Your task to perform on an android device: toggle sleep mode Image 0: 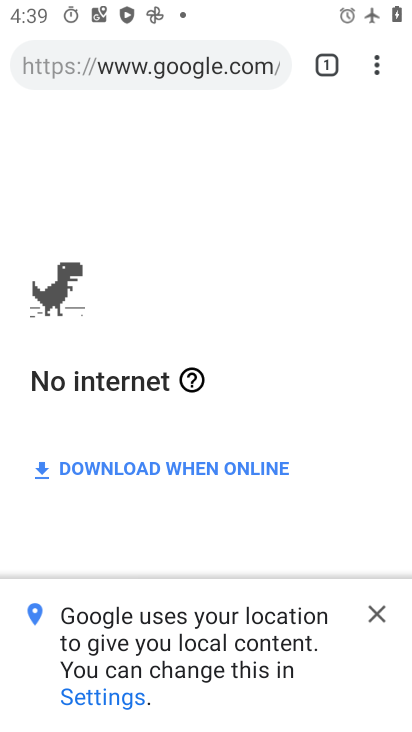
Step 0: press home button
Your task to perform on an android device: toggle sleep mode Image 1: 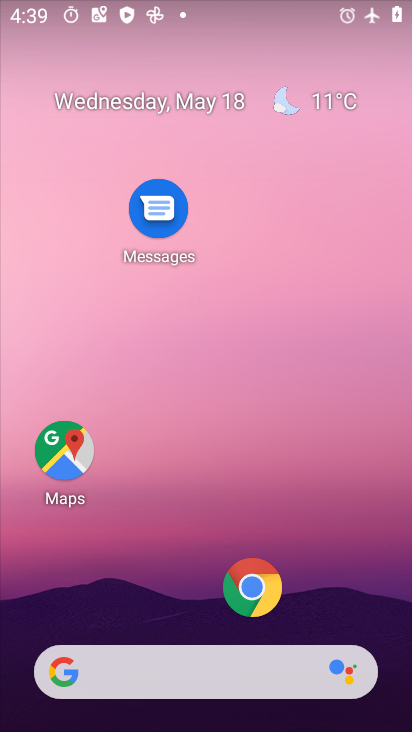
Step 1: drag from (293, 607) to (314, 327)
Your task to perform on an android device: toggle sleep mode Image 2: 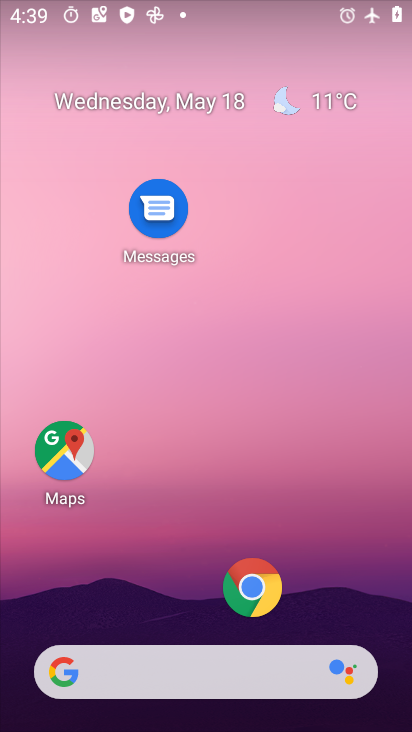
Step 2: drag from (316, 558) to (296, 0)
Your task to perform on an android device: toggle sleep mode Image 3: 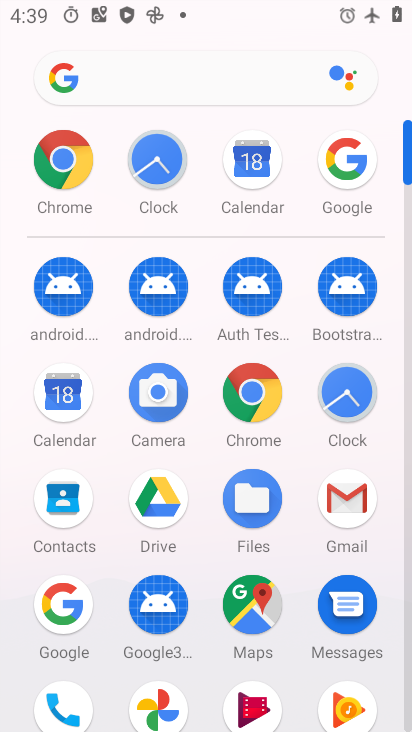
Step 3: drag from (240, 492) to (242, 86)
Your task to perform on an android device: toggle sleep mode Image 4: 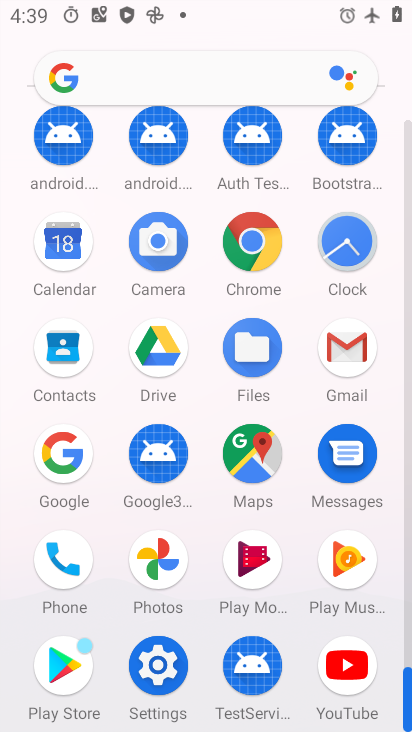
Step 4: click (168, 665)
Your task to perform on an android device: toggle sleep mode Image 5: 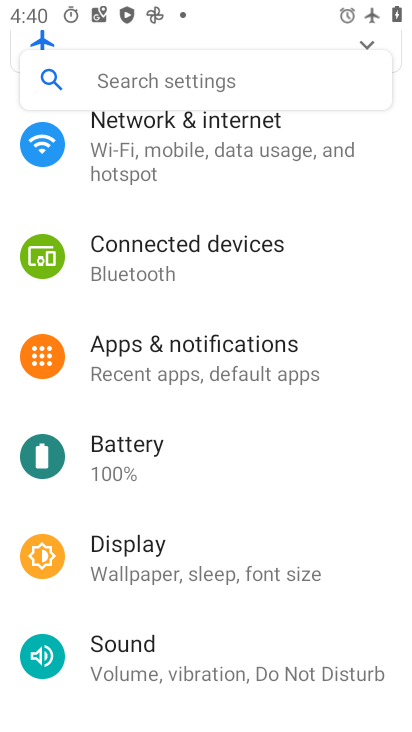
Step 5: drag from (168, 665) to (242, 212)
Your task to perform on an android device: toggle sleep mode Image 6: 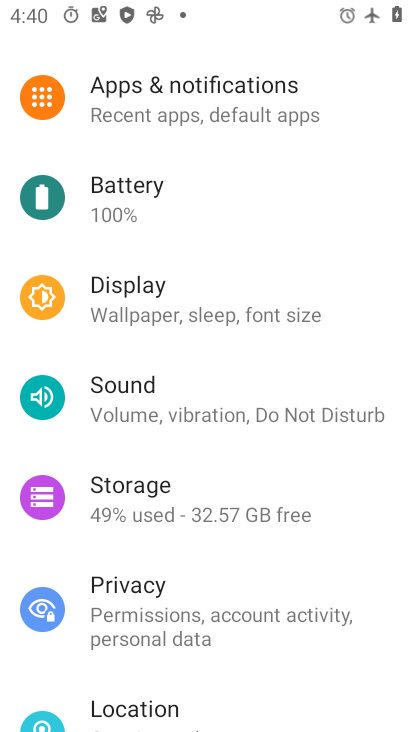
Step 6: click (212, 311)
Your task to perform on an android device: toggle sleep mode Image 7: 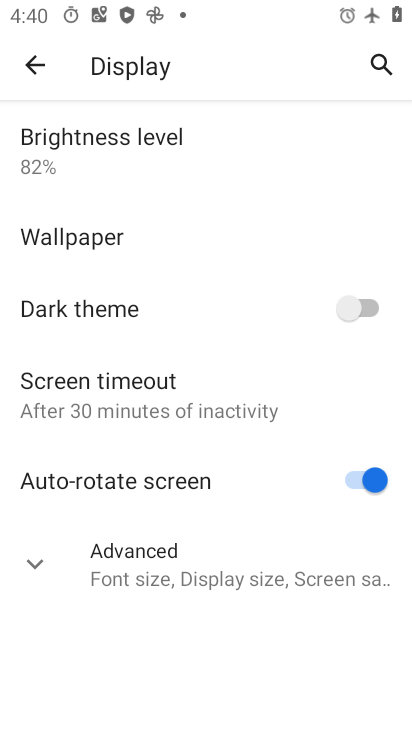
Step 7: click (185, 589)
Your task to perform on an android device: toggle sleep mode Image 8: 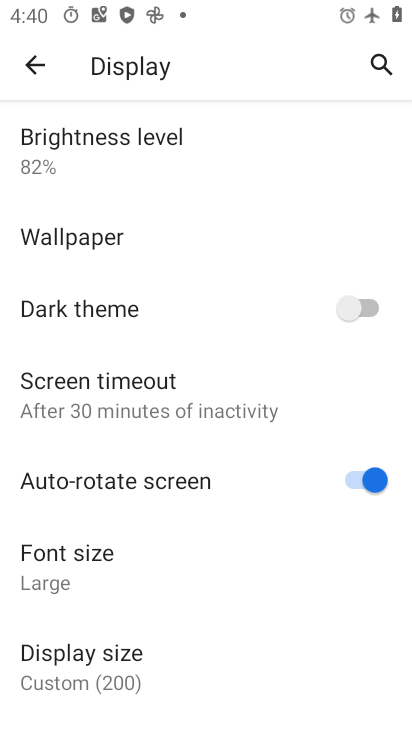
Step 8: task complete